Your task to perform on an android device: show emergency info Image 0: 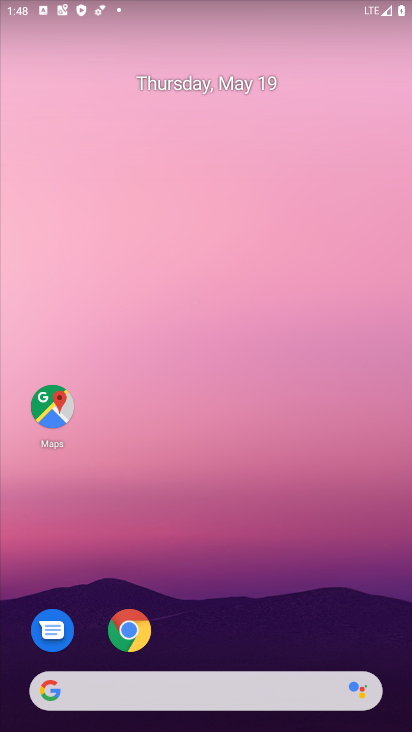
Step 0: drag from (392, 621) to (344, 6)
Your task to perform on an android device: show emergency info Image 1: 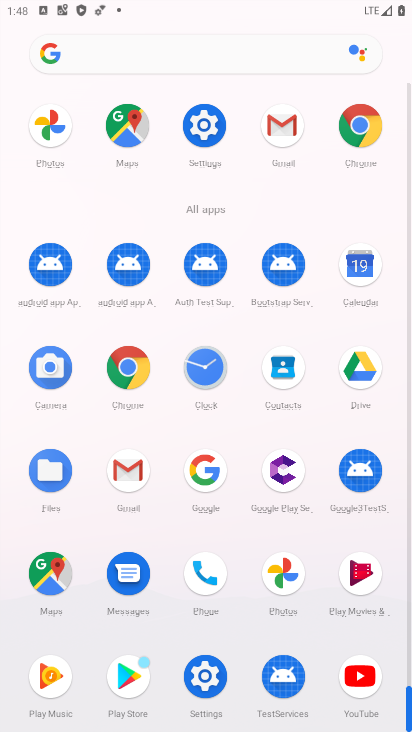
Step 1: click (201, 677)
Your task to perform on an android device: show emergency info Image 2: 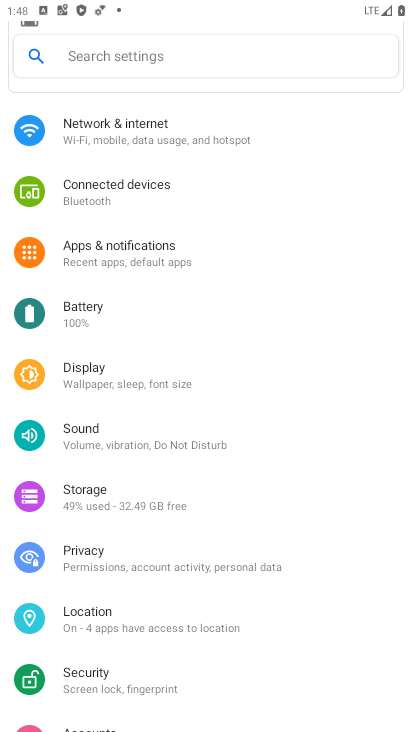
Step 2: drag from (340, 692) to (322, 155)
Your task to perform on an android device: show emergency info Image 3: 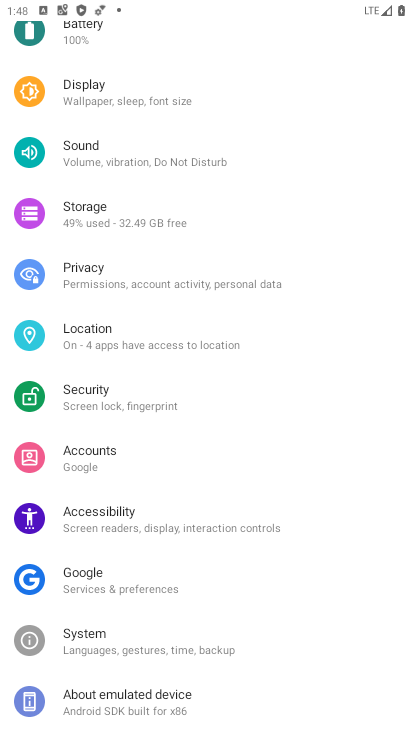
Step 3: click (110, 692)
Your task to perform on an android device: show emergency info Image 4: 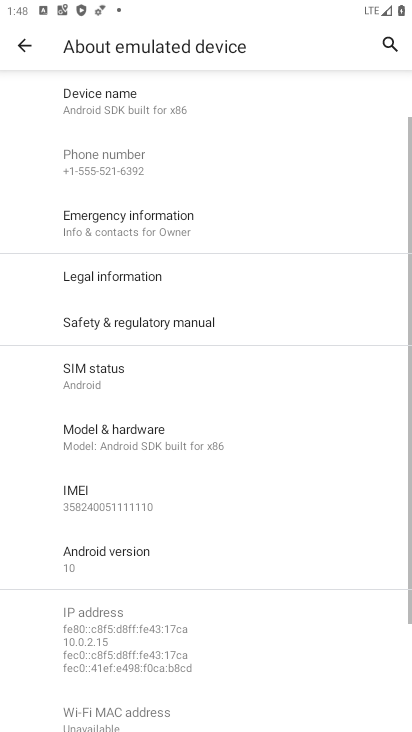
Step 4: click (117, 222)
Your task to perform on an android device: show emergency info Image 5: 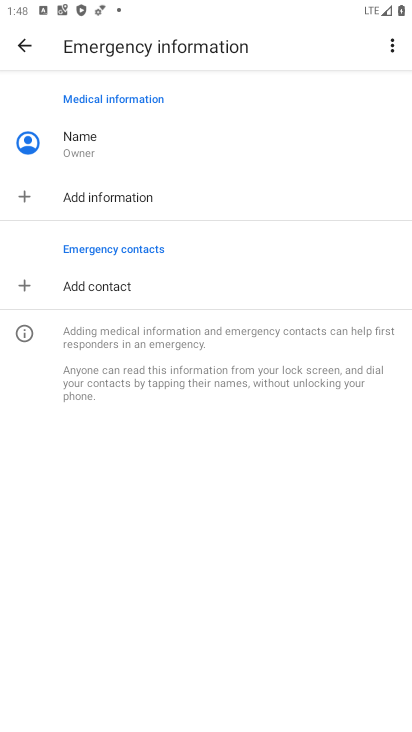
Step 5: task complete